Your task to perform on an android device: change the upload size in google photos Image 0: 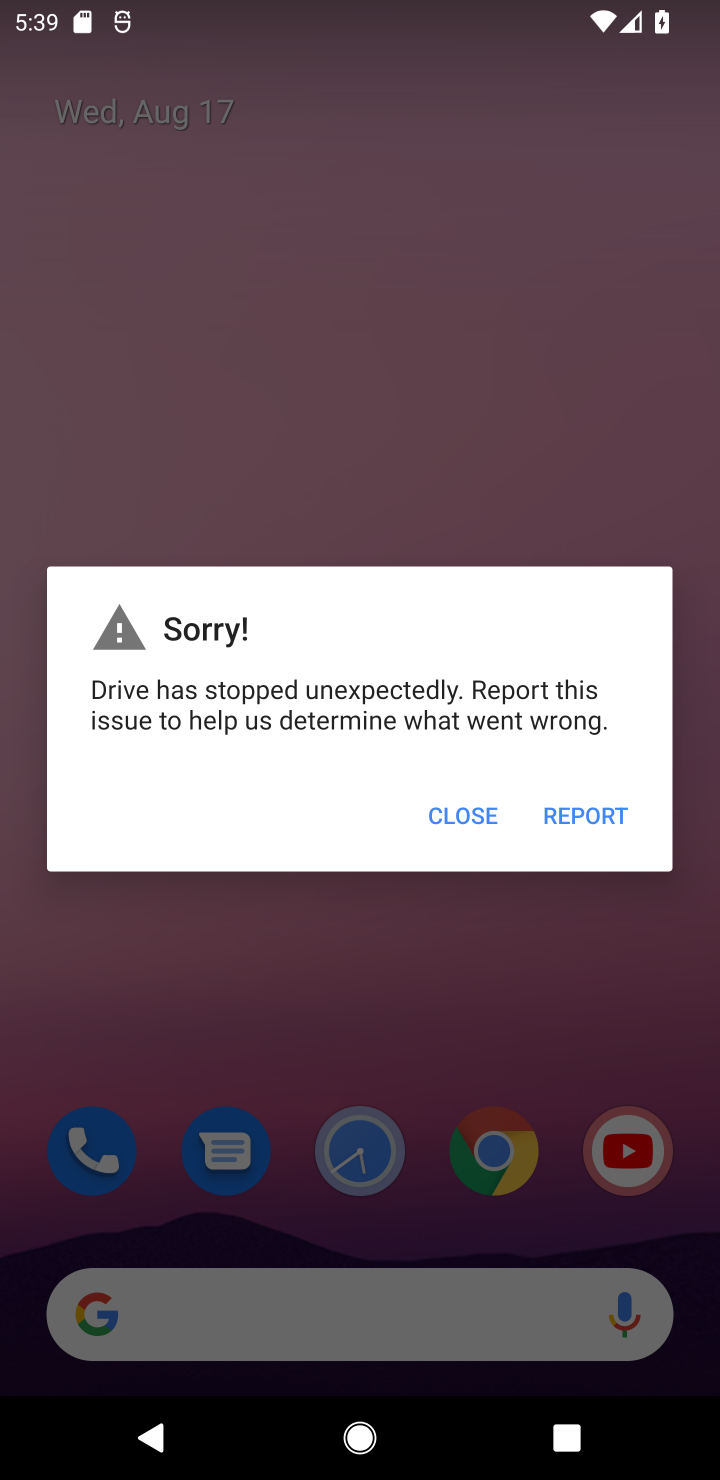
Step 0: click (503, 794)
Your task to perform on an android device: change the upload size in google photos Image 1: 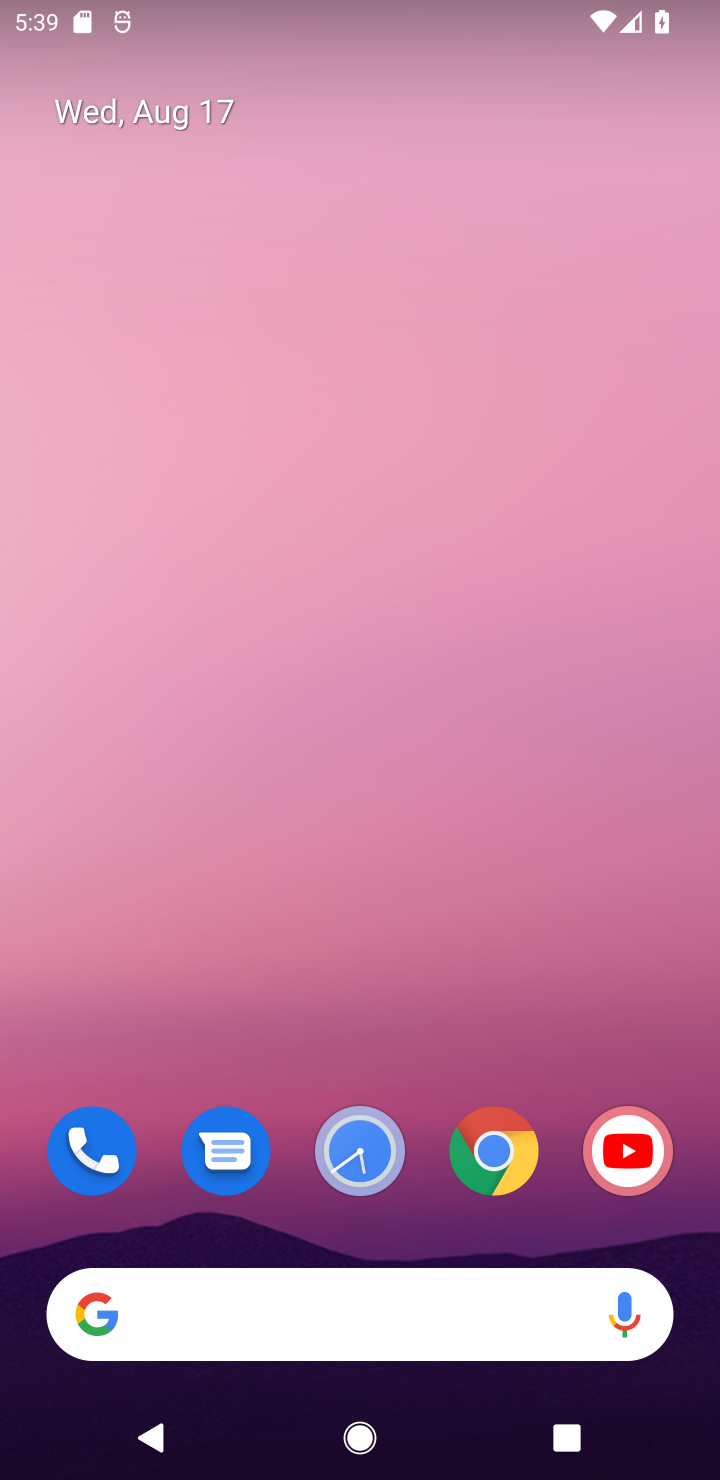
Step 1: drag from (440, 1215) to (492, 369)
Your task to perform on an android device: change the upload size in google photos Image 2: 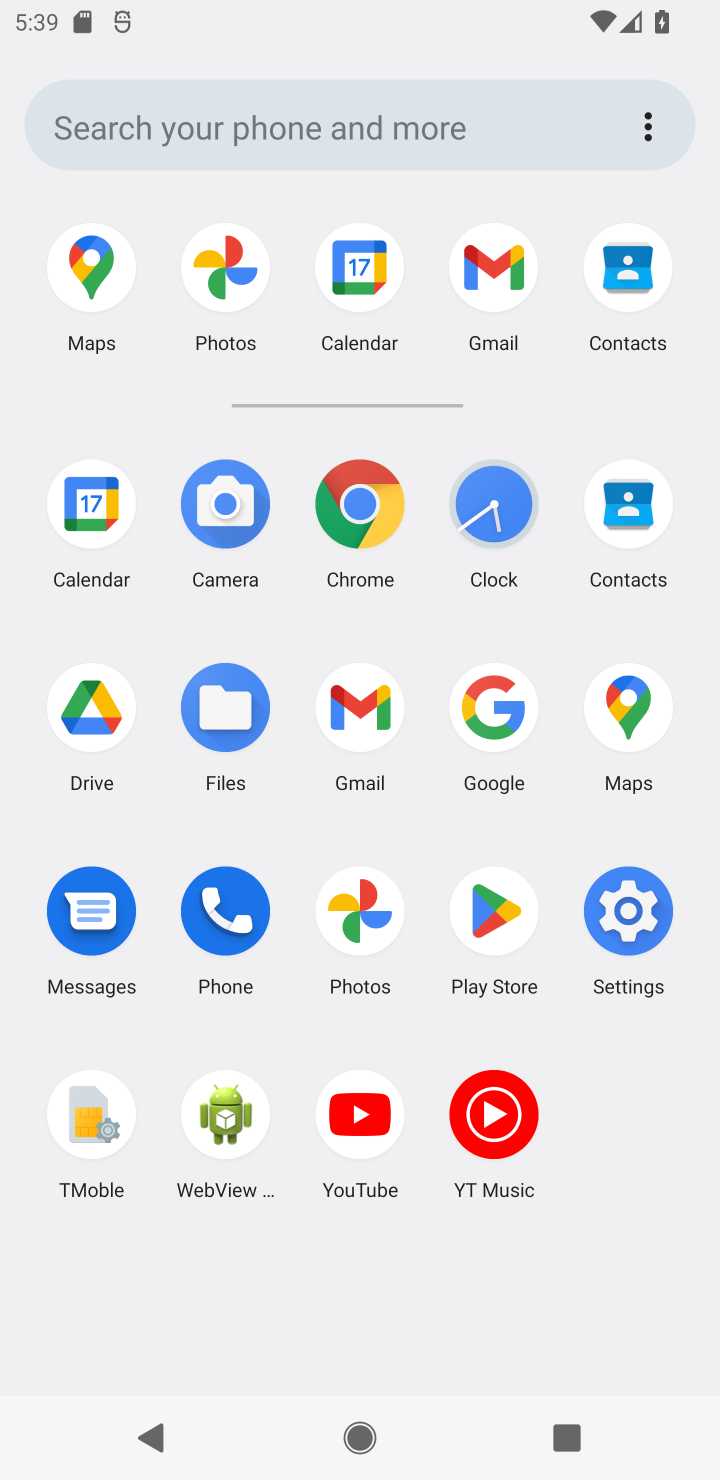
Step 2: click (362, 946)
Your task to perform on an android device: change the upload size in google photos Image 3: 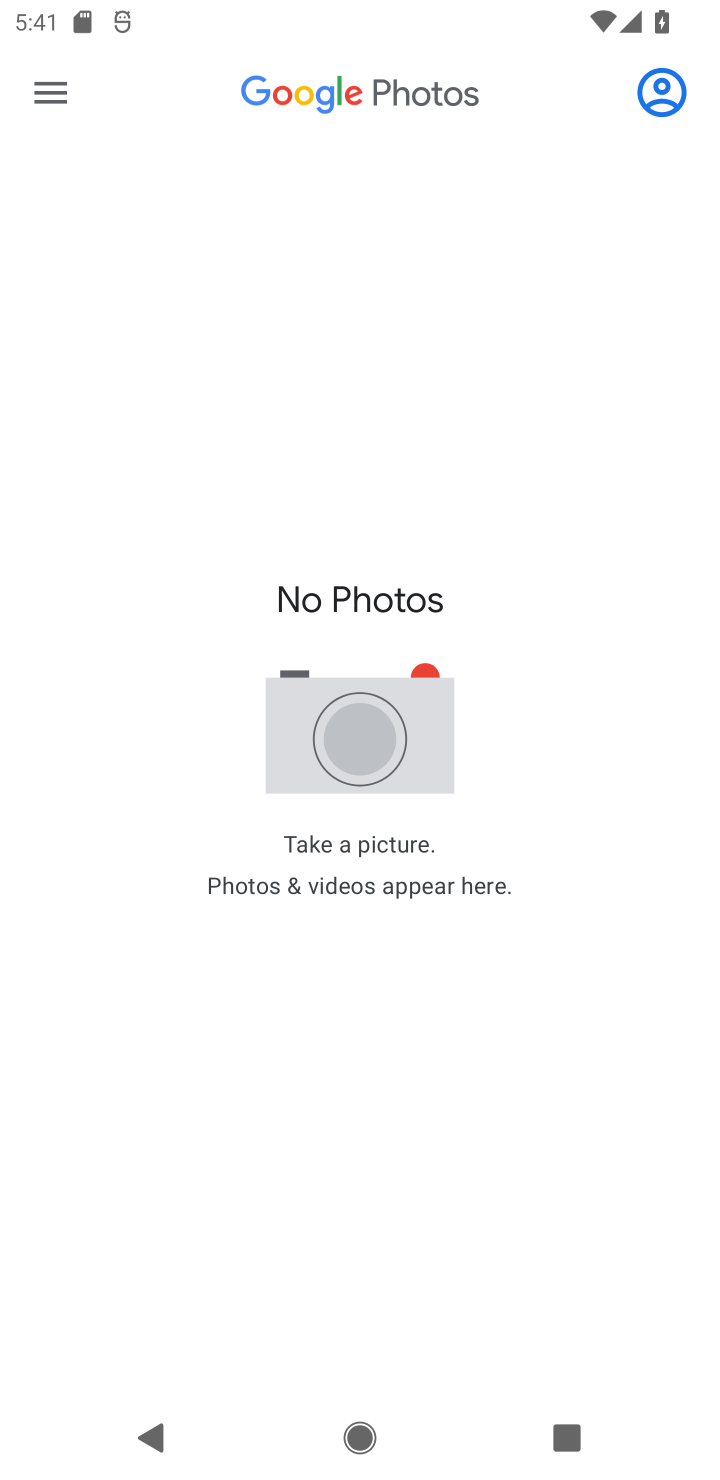
Step 3: task complete